Your task to perform on an android device: Open accessibility settings Image 0: 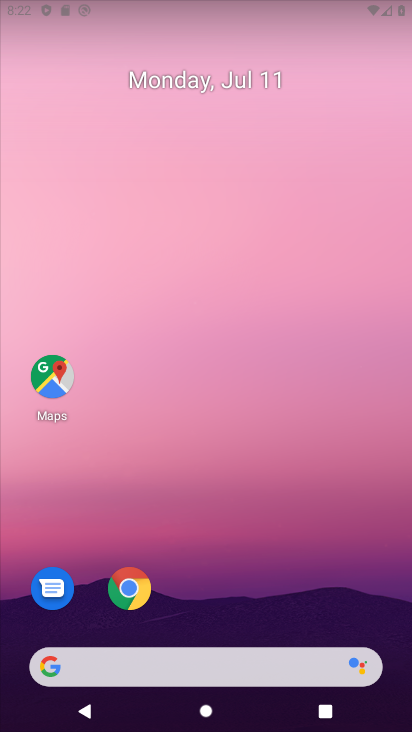
Step 0: drag from (141, 670) to (111, 17)
Your task to perform on an android device: Open accessibility settings Image 1: 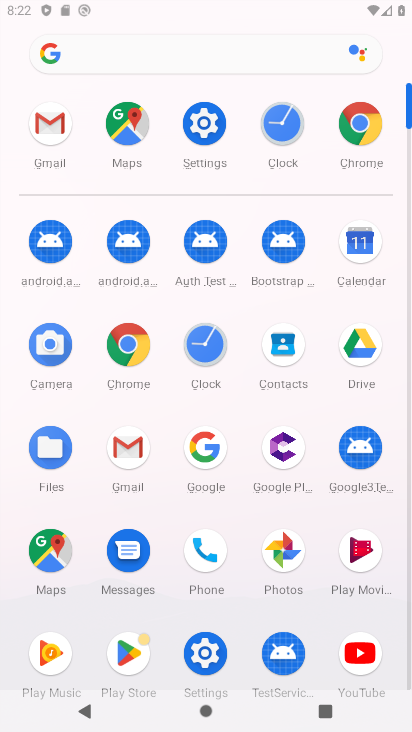
Step 1: click (200, 108)
Your task to perform on an android device: Open accessibility settings Image 2: 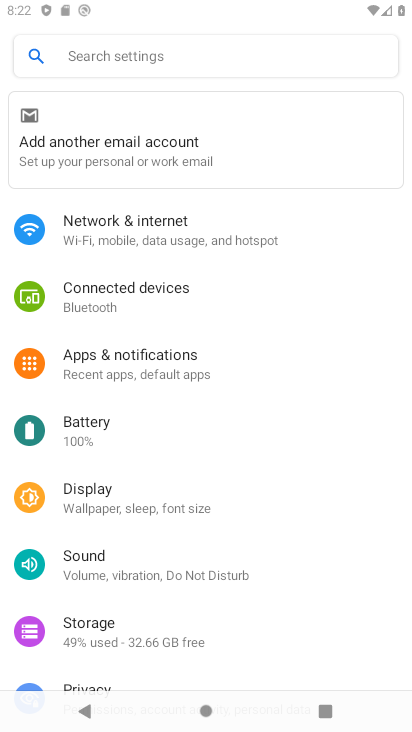
Step 2: drag from (309, 636) to (310, 173)
Your task to perform on an android device: Open accessibility settings Image 3: 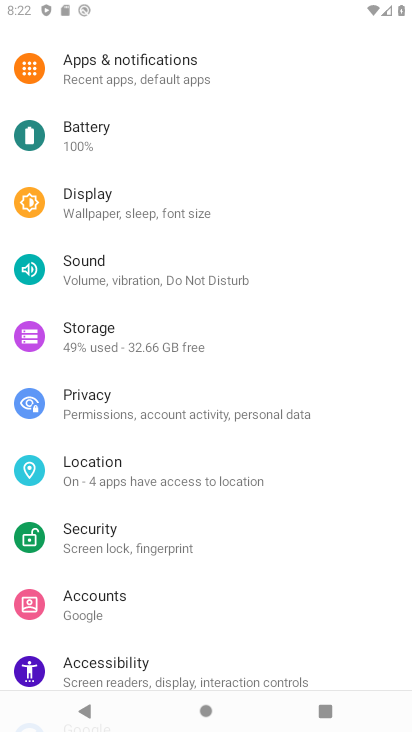
Step 3: click (137, 665)
Your task to perform on an android device: Open accessibility settings Image 4: 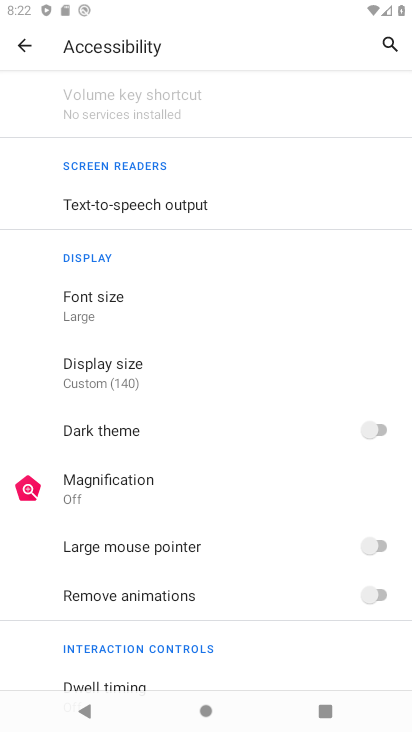
Step 4: task complete